Your task to perform on an android device: star an email in the gmail app Image 0: 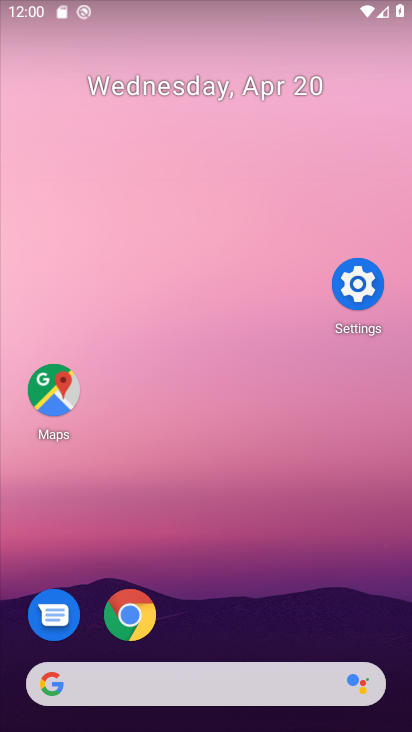
Step 0: drag from (206, 636) to (307, 111)
Your task to perform on an android device: star an email in the gmail app Image 1: 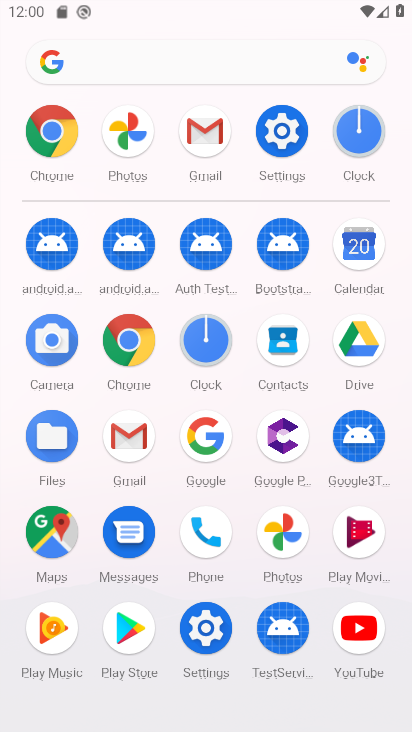
Step 1: click (124, 433)
Your task to perform on an android device: star an email in the gmail app Image 2: 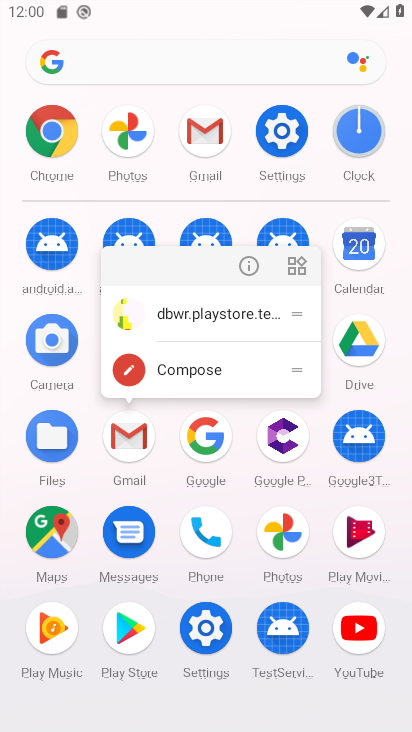
Step 2: click (251, 263)
Your task to perform on an android device: star an email in the gmail app Image 3: 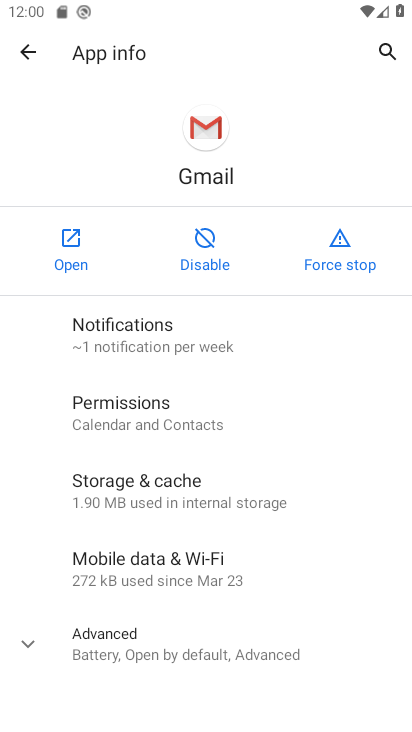
Step 3: click (85, 244)
Your task to perform on an android device: star an email in the gmail app Image 4: 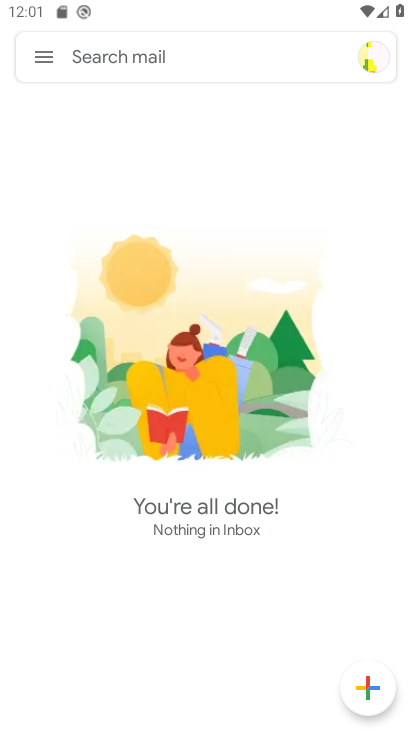
Step 4: task complete